Your task to perform on an android device: change the clock style Image 0: 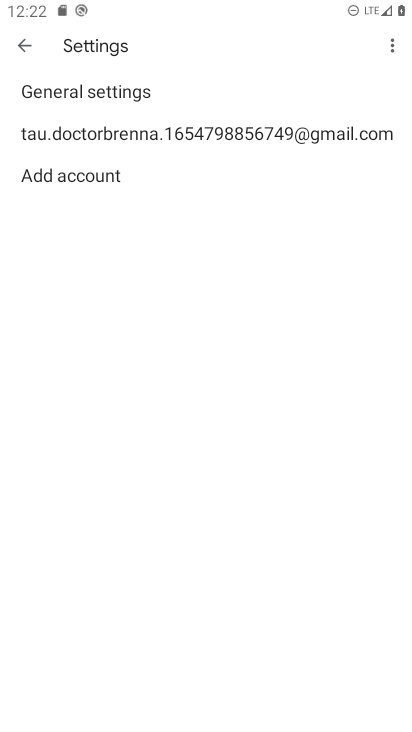
Step 0: press home button
Your task to perform on an android device: change the clock style Image 1: 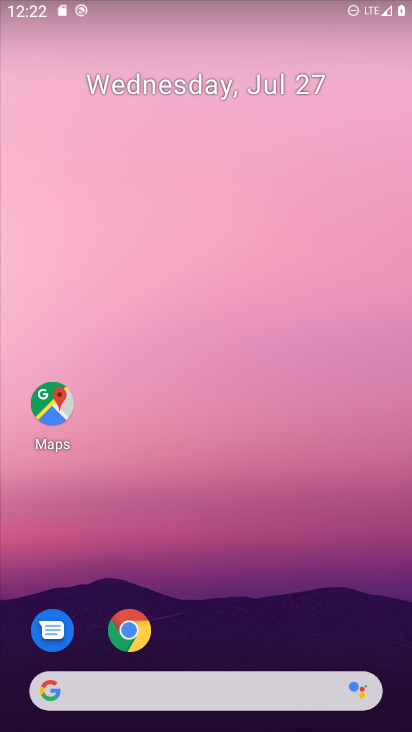
Step 1: drag from (377, 648) to (296, 250)
Your task to perform on an android device: change the clock style Image 2: 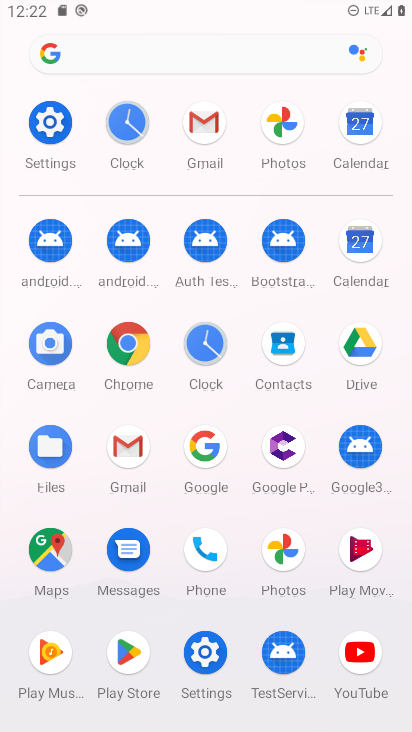
Step 2: click (204, 344)
Your task to perform on an android device: change the clock style Image 3: 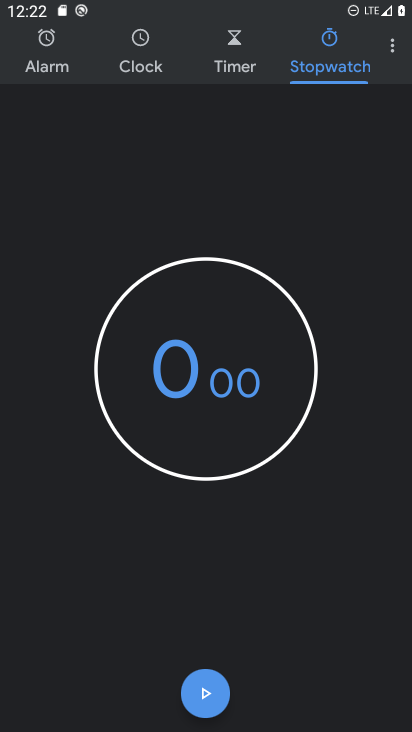
Step 3: click (394, 52)
Your task to perform on an android device: change the clock style Image 4: 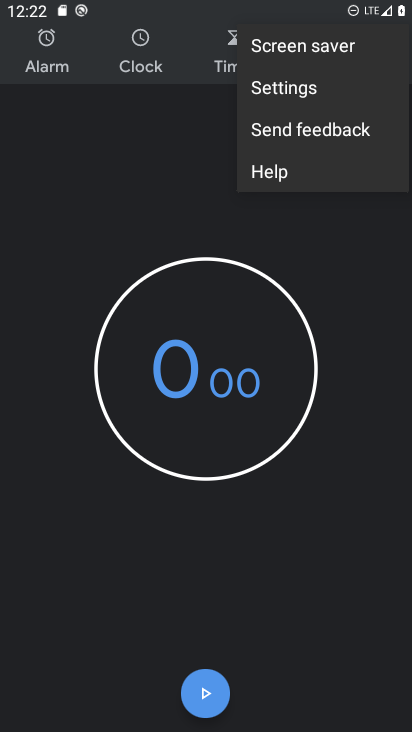
Step 4: click (289, 88)
Your task to perform on an android device: change the clock style Image 5: 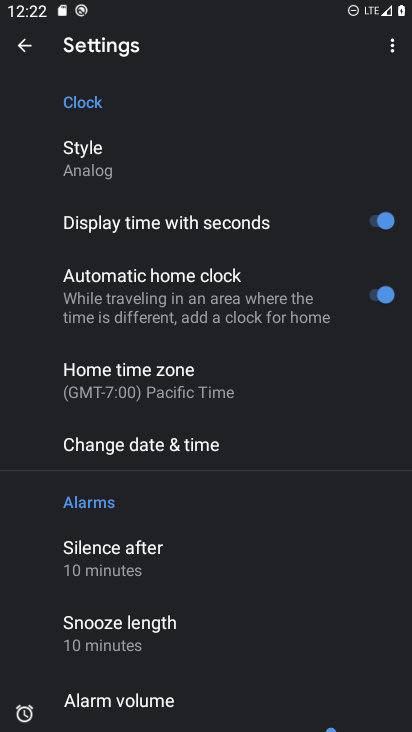
Step 5: click (96, 156)
Your task to perform on an android device: change the clock style Image 6: 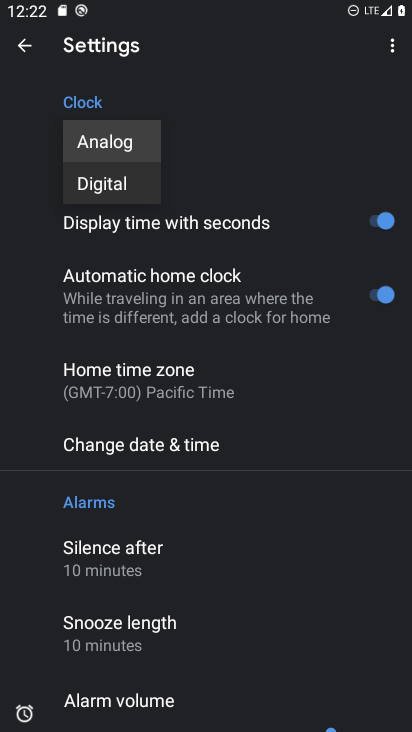
Step 6: click (104, 185)
Your task to perform on an android device: change the clock style Image 7: 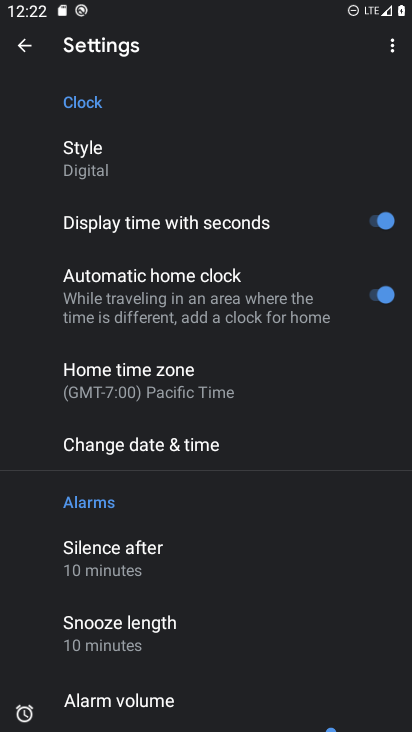
Step 7: task complete